Your task to perform on an android device: What's a good restaurant in Atlanta? Image 0: 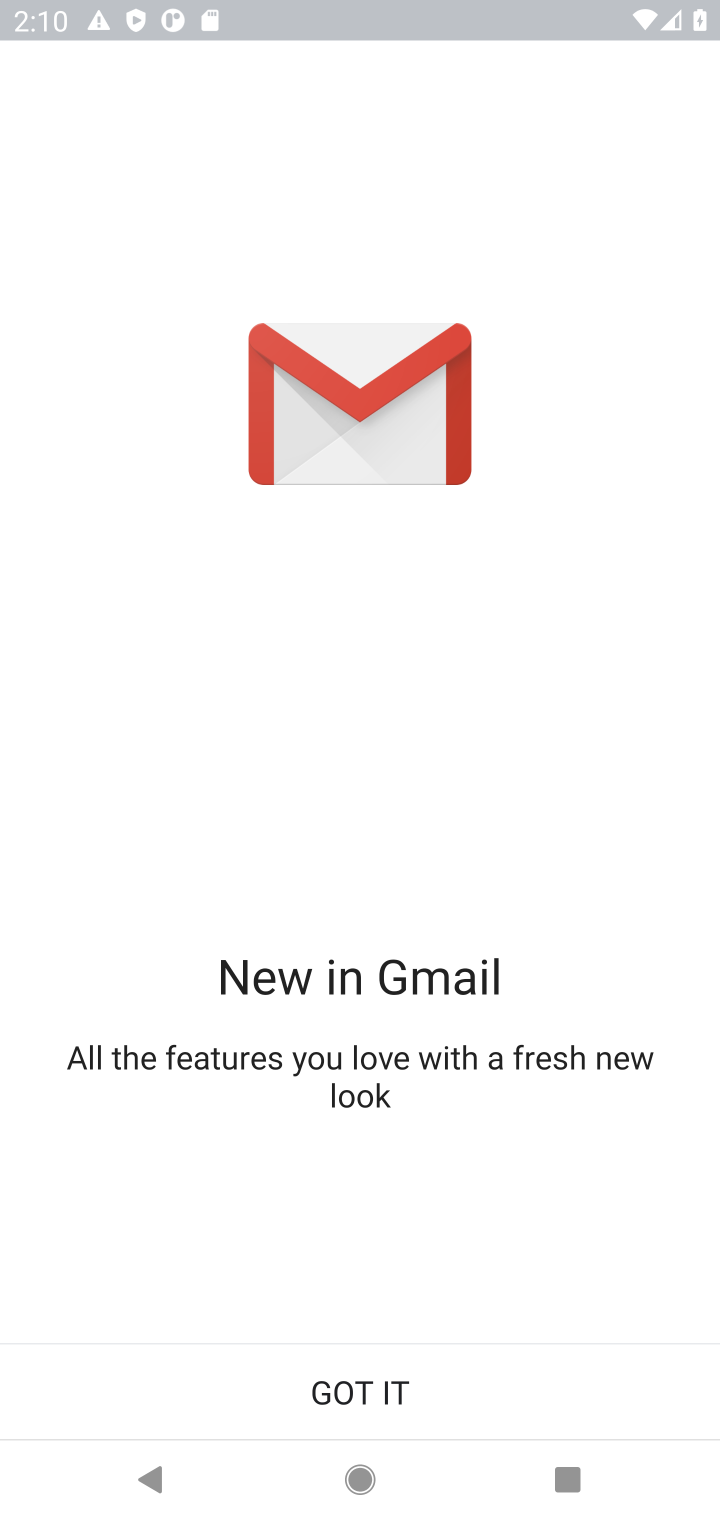
Step 0: press back button
Your task to perform on an android device: What's a good restaurant in Atlanta? Image 1: 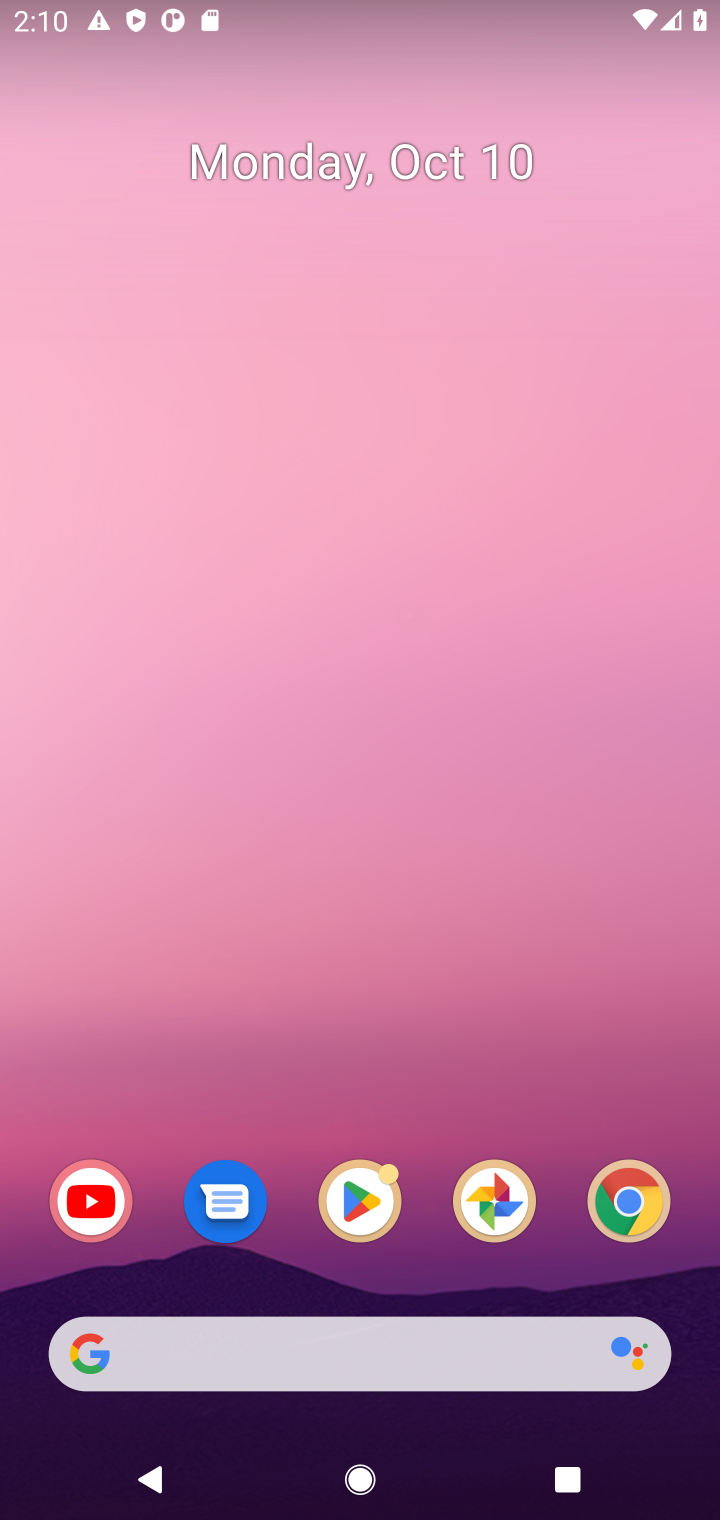
Step 1: click (218, 1370)
Your task to perform on an android device: What's a good restaurant in Atlanta? Image 2: 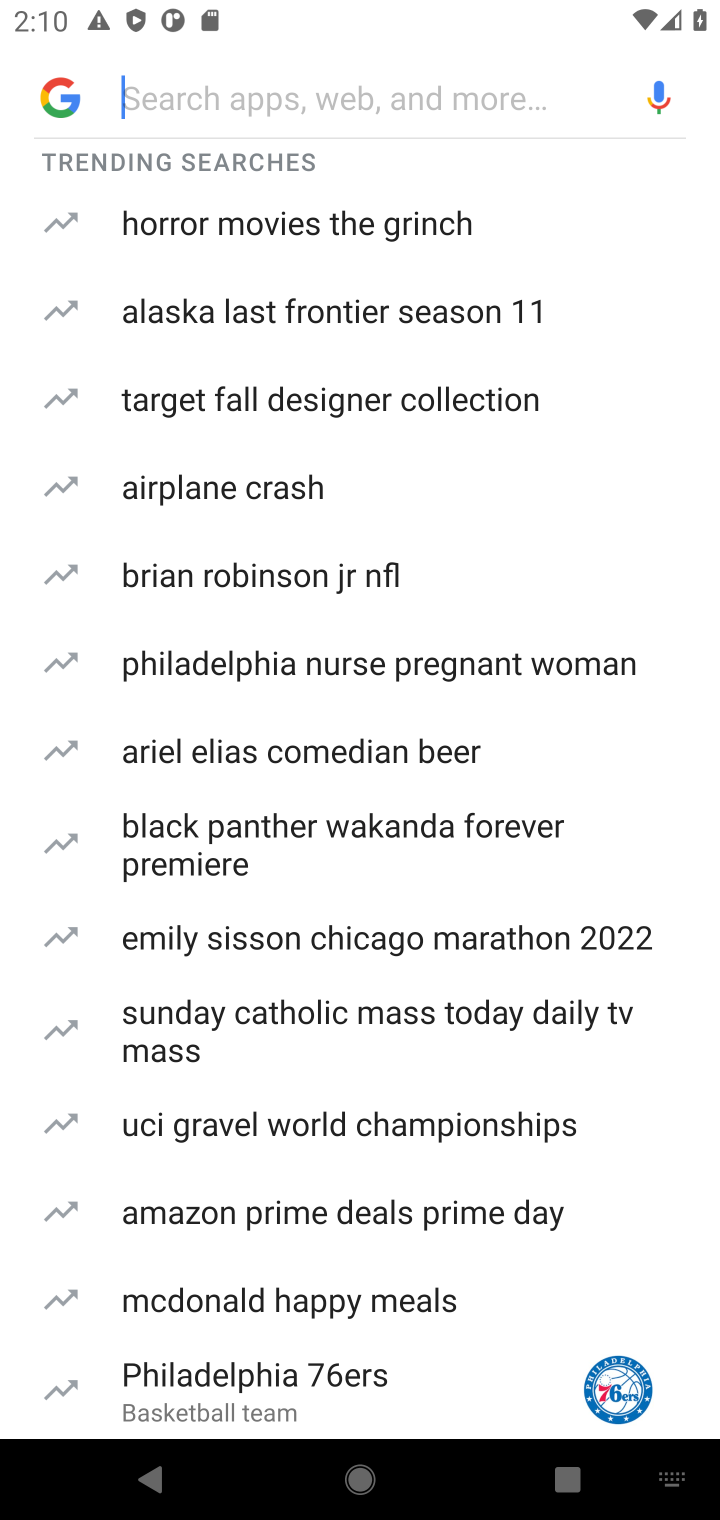
Step 2: type "good restaurant in Atlanta?"
Your task to perform on an android device: What's a good restaurant in Atlanta? Image 3: 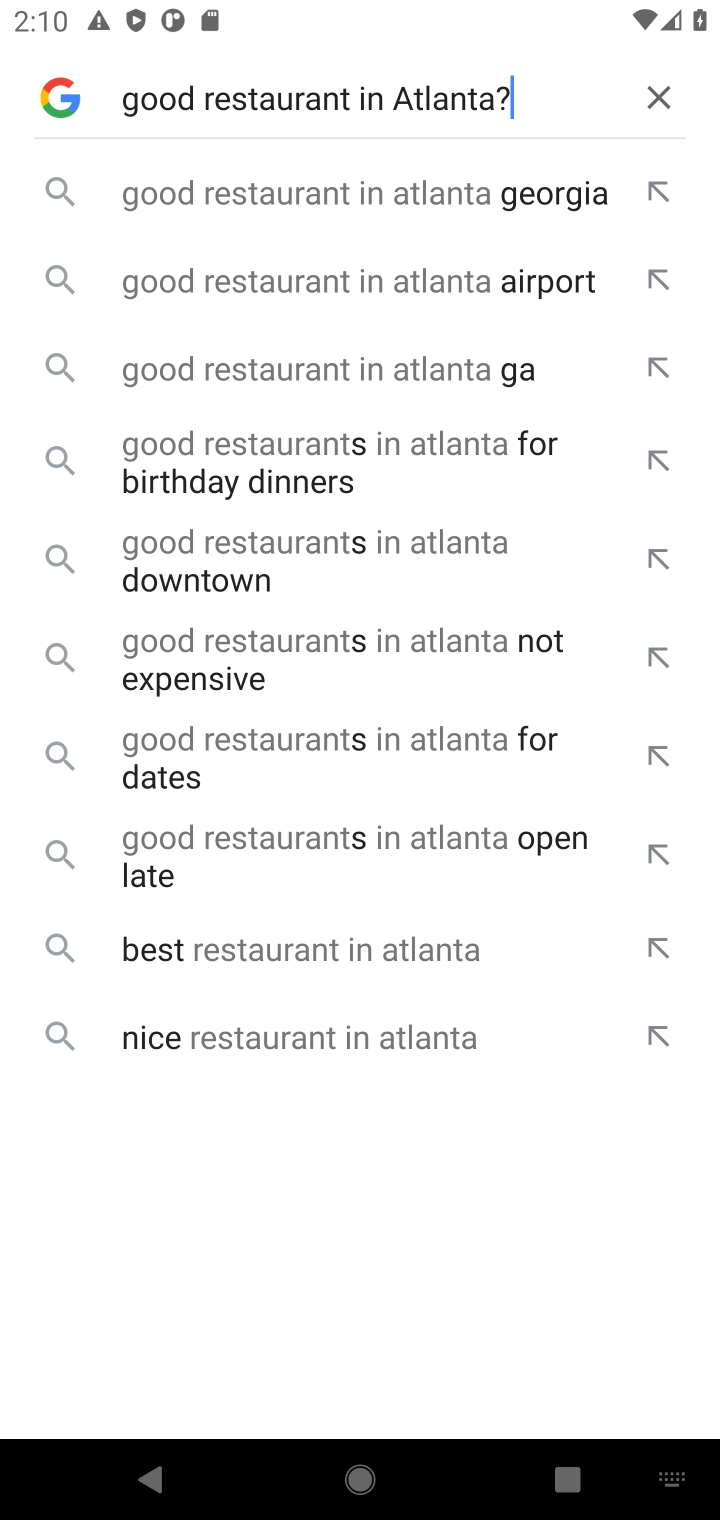
Step 3: press enter
Your task to perform on an android device: What's a good restaurant in Atlanta? Image 4: 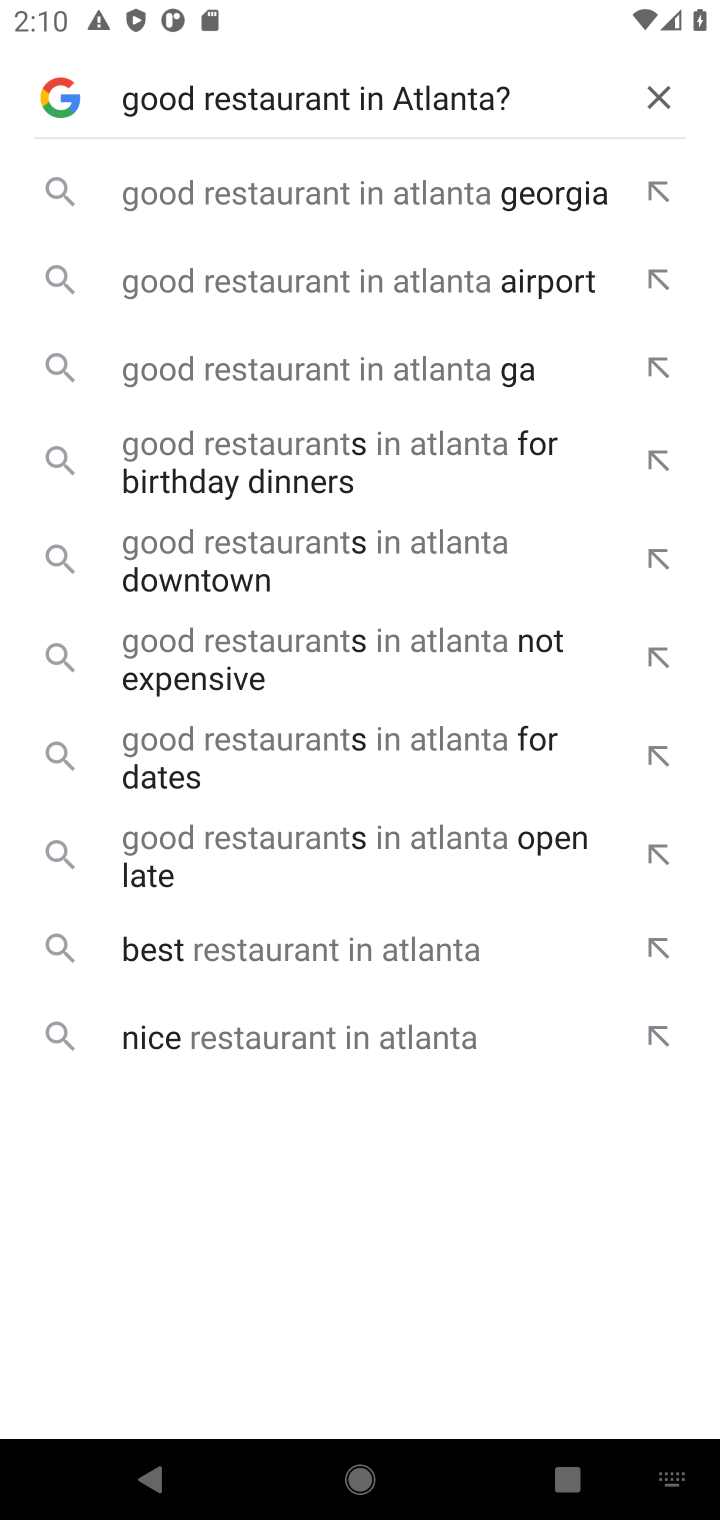
Step 4: type ""
Your task to perform on an android device: What's a good restaurant in Atlanta? Image 5: 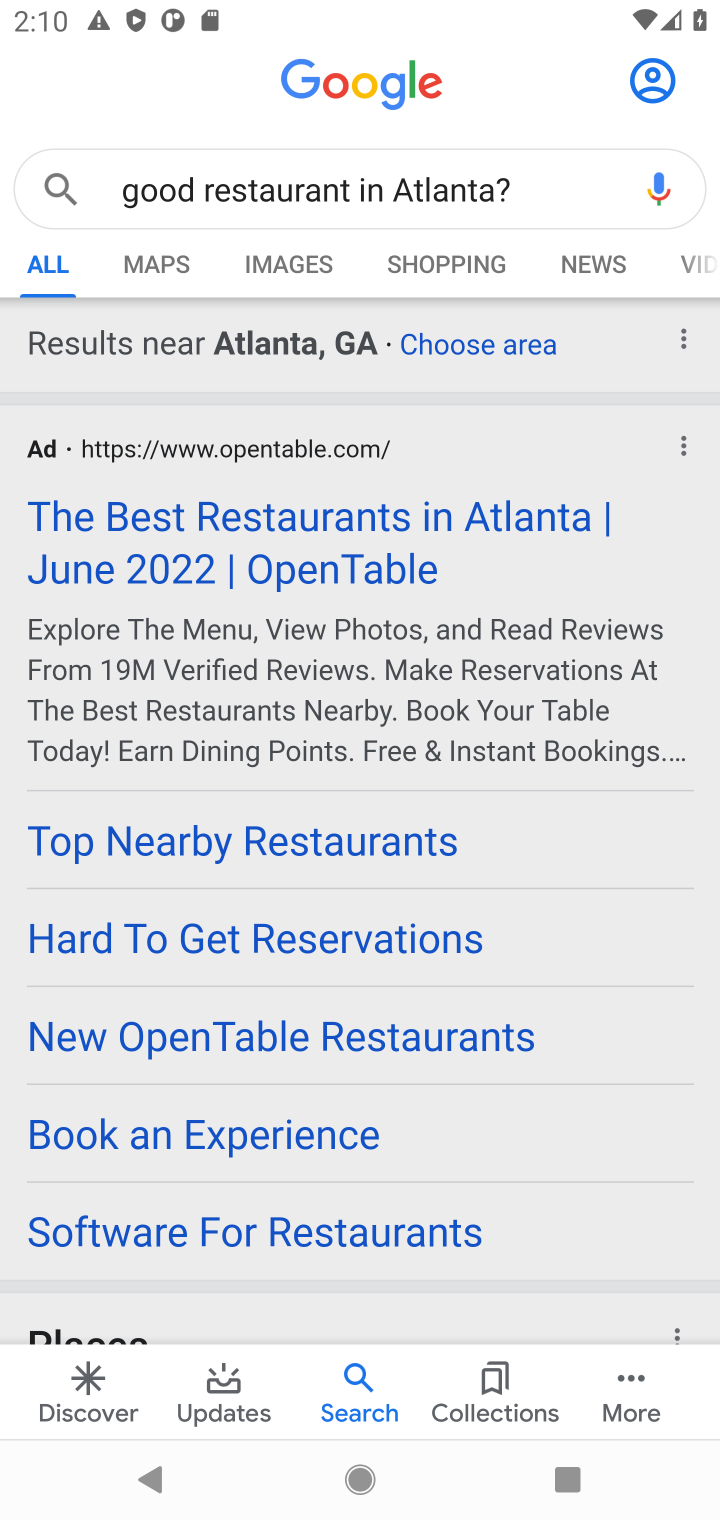
Step 5: drag from (390, 1087) to (426, 420)
Your task to perform on an android device: What's a good restaurant in Atlanta? Image 6: 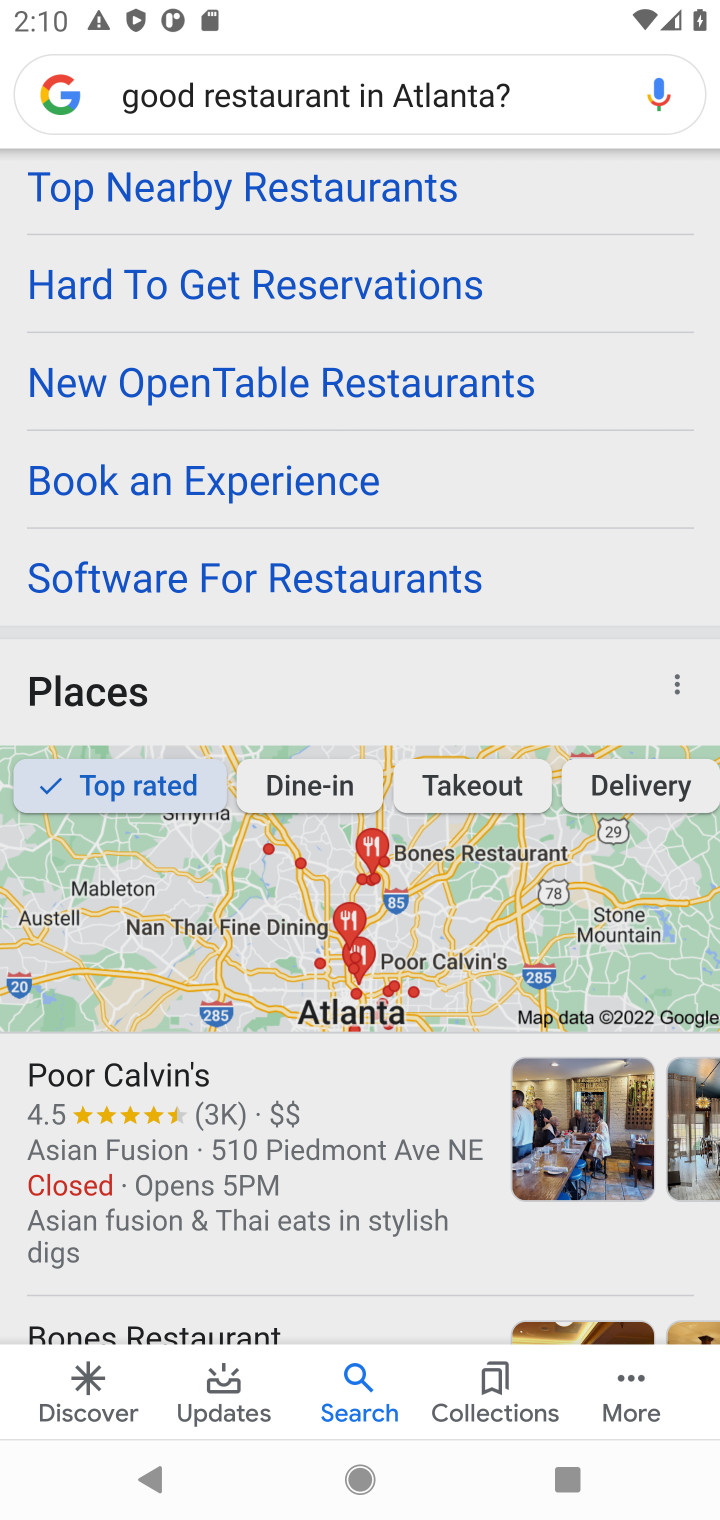
Step 6: drag from (392, 1206) to (413, 675)
Your task to perform on an android device: What's a good restaurant in Atlanta? Image 7: 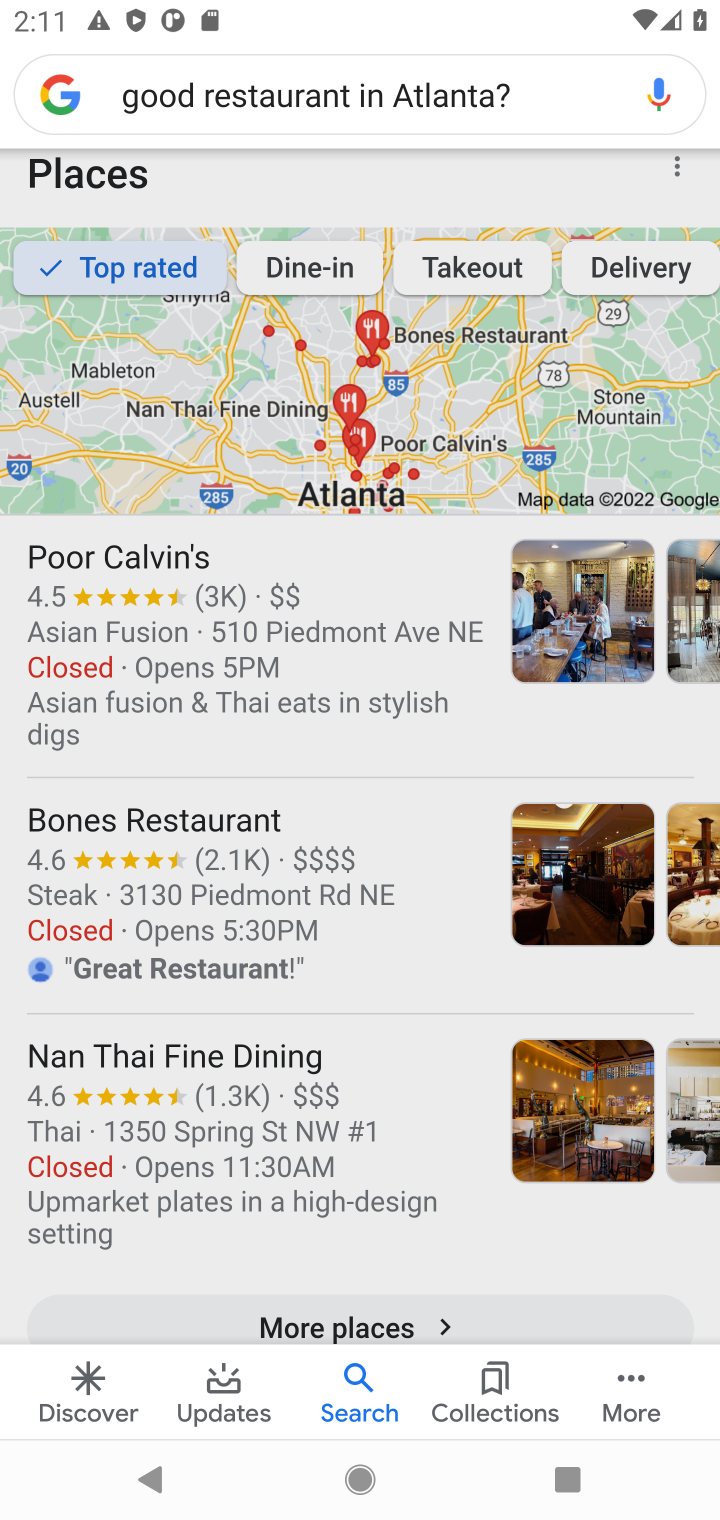
Step 7: click (413, 675)
Your task to perform on an android device: What's a good restaurant in Atlanta? Image 8: 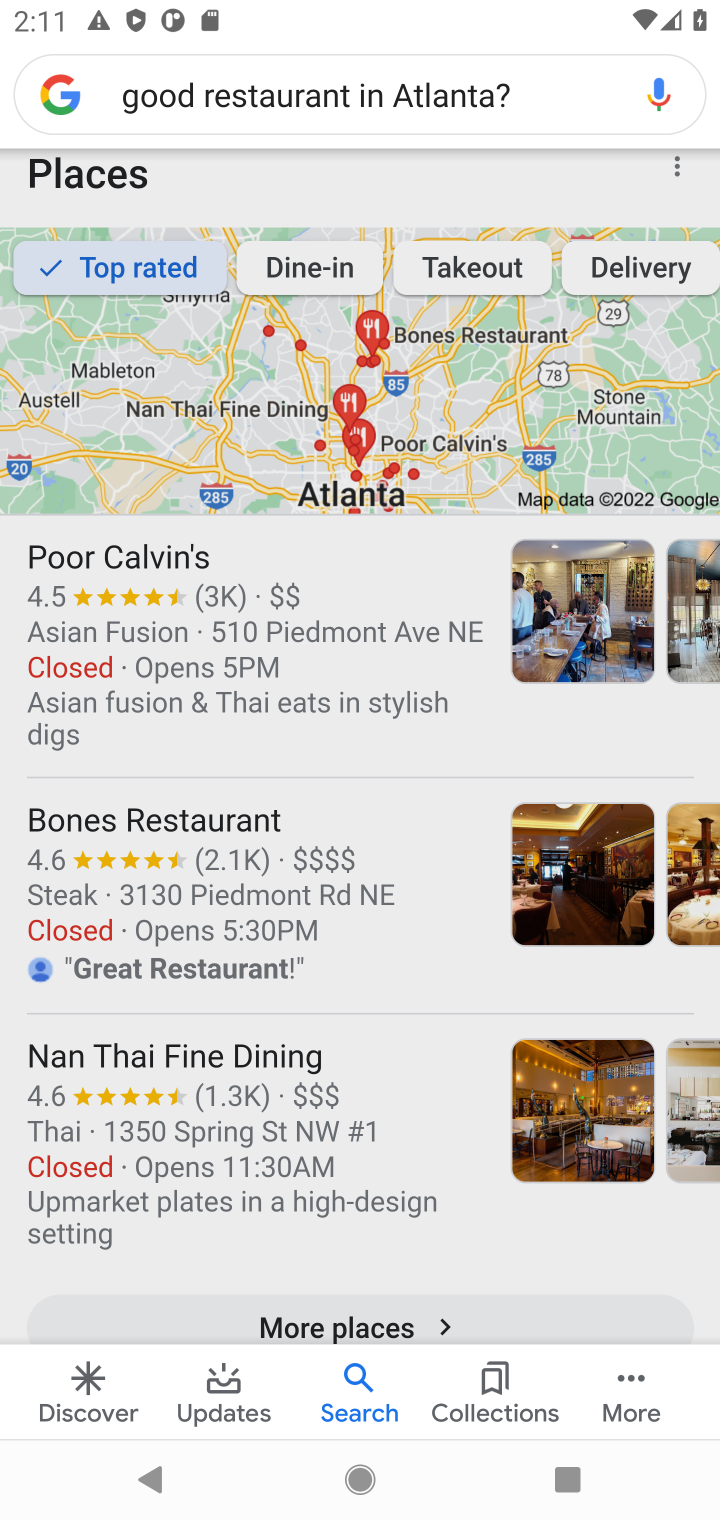
Step 8: drag from (176, 1215) to (242, 929)
Your task to perform on an android device: What's a good restaurant in Atlanta? Image 9: 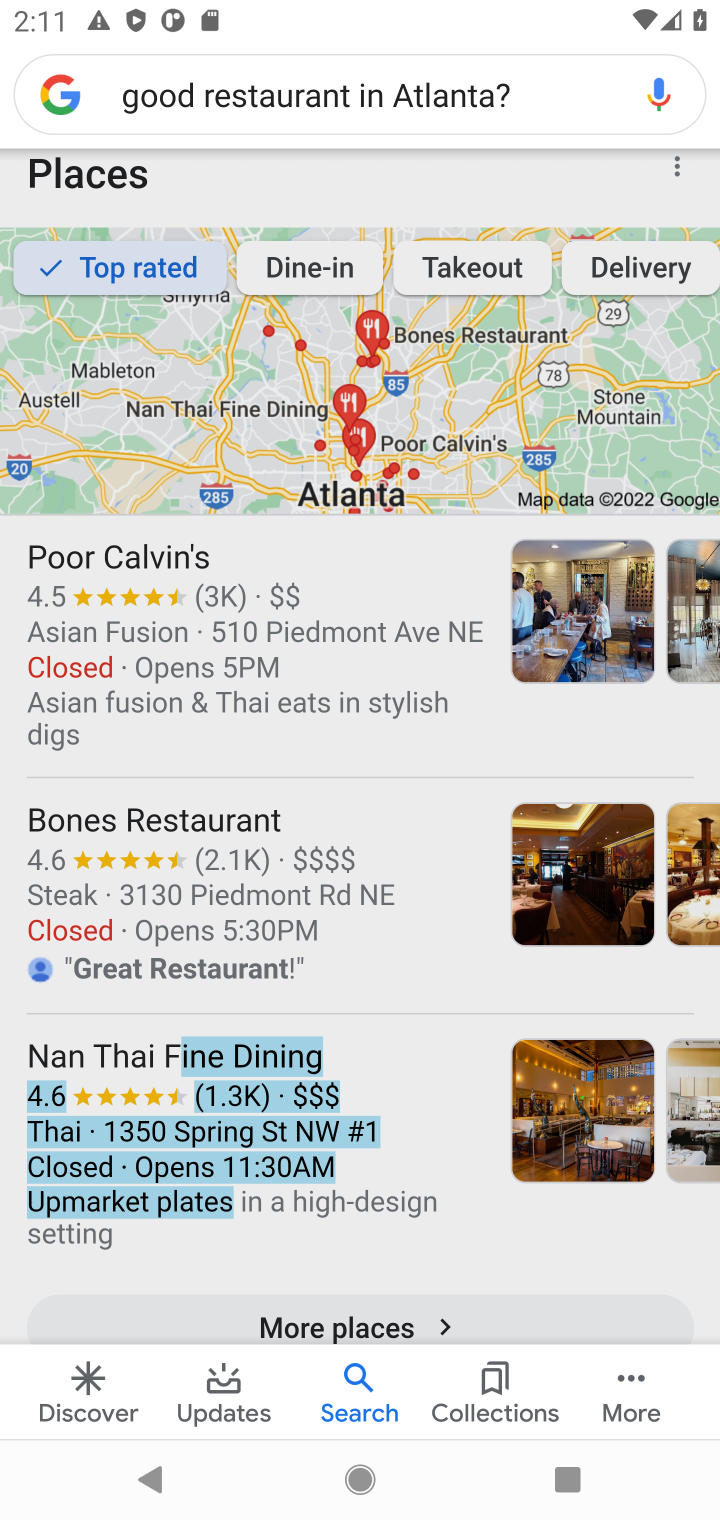
Step 9: click (370, 1005)
Your task to perform on an android device: What's a good restaurant in Atlanta? Image 10: 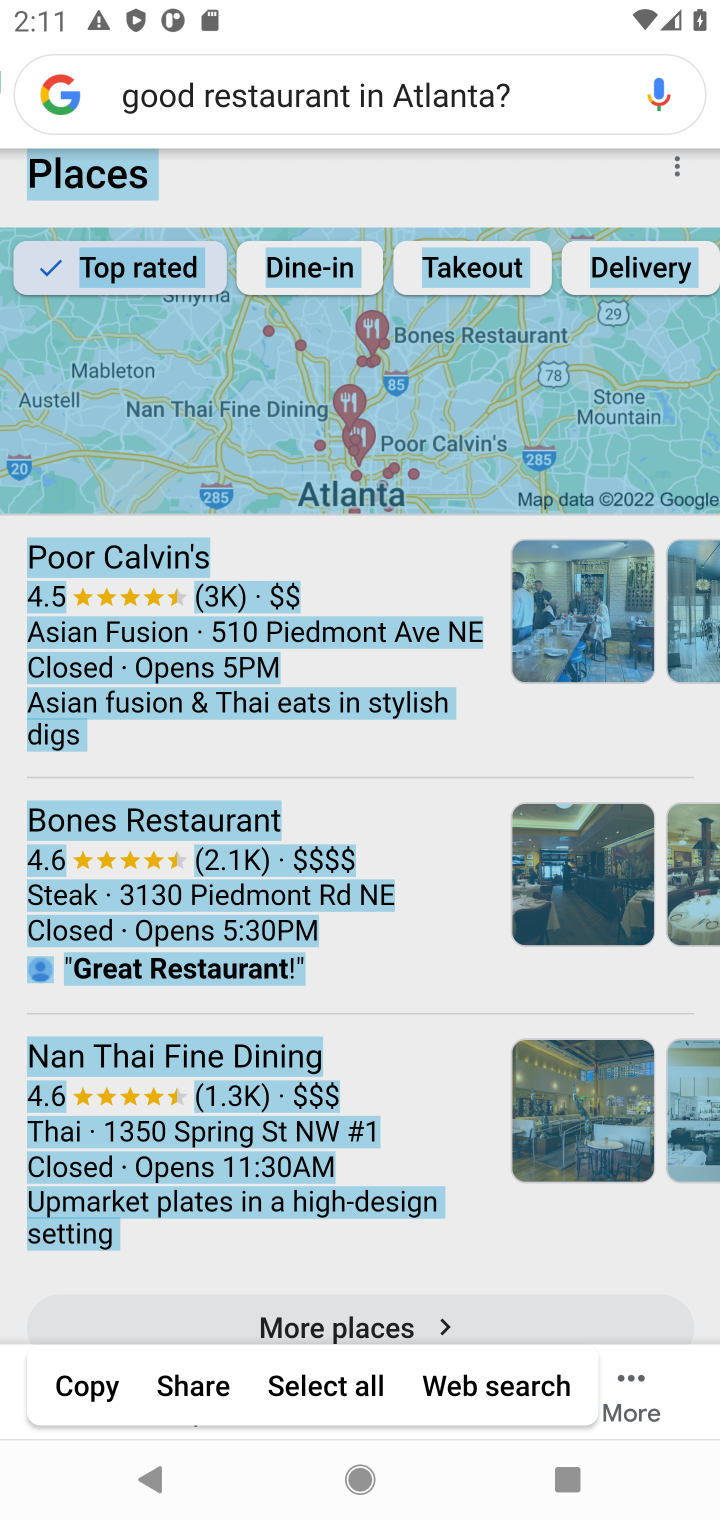
Step 10: click (384, 1118)
Your task to perform on an android device: What's a good restaurant in Atlanta? Image 11: 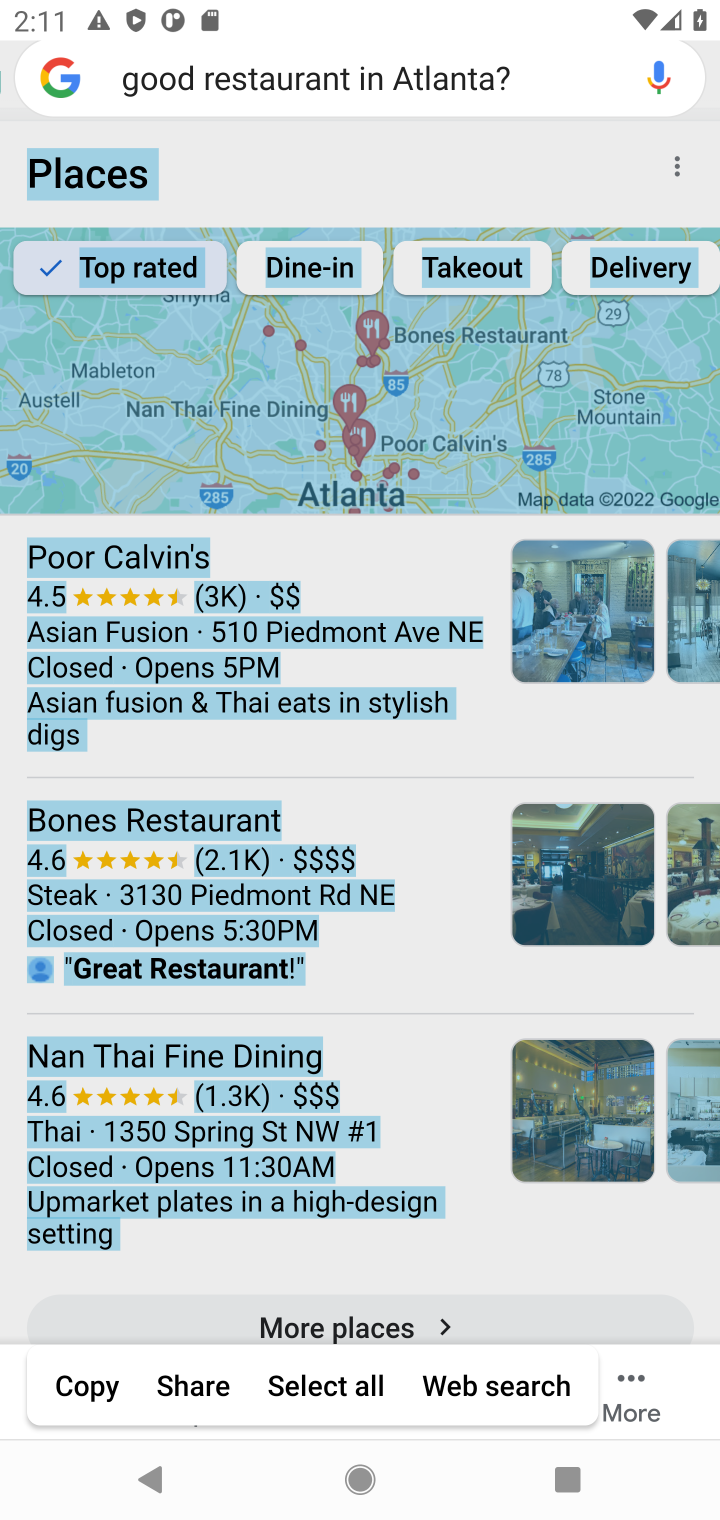
Step 11: click (384, 1116)
Your task to perform on an android device: What's a good restaurant in Atlanta? Image 12: 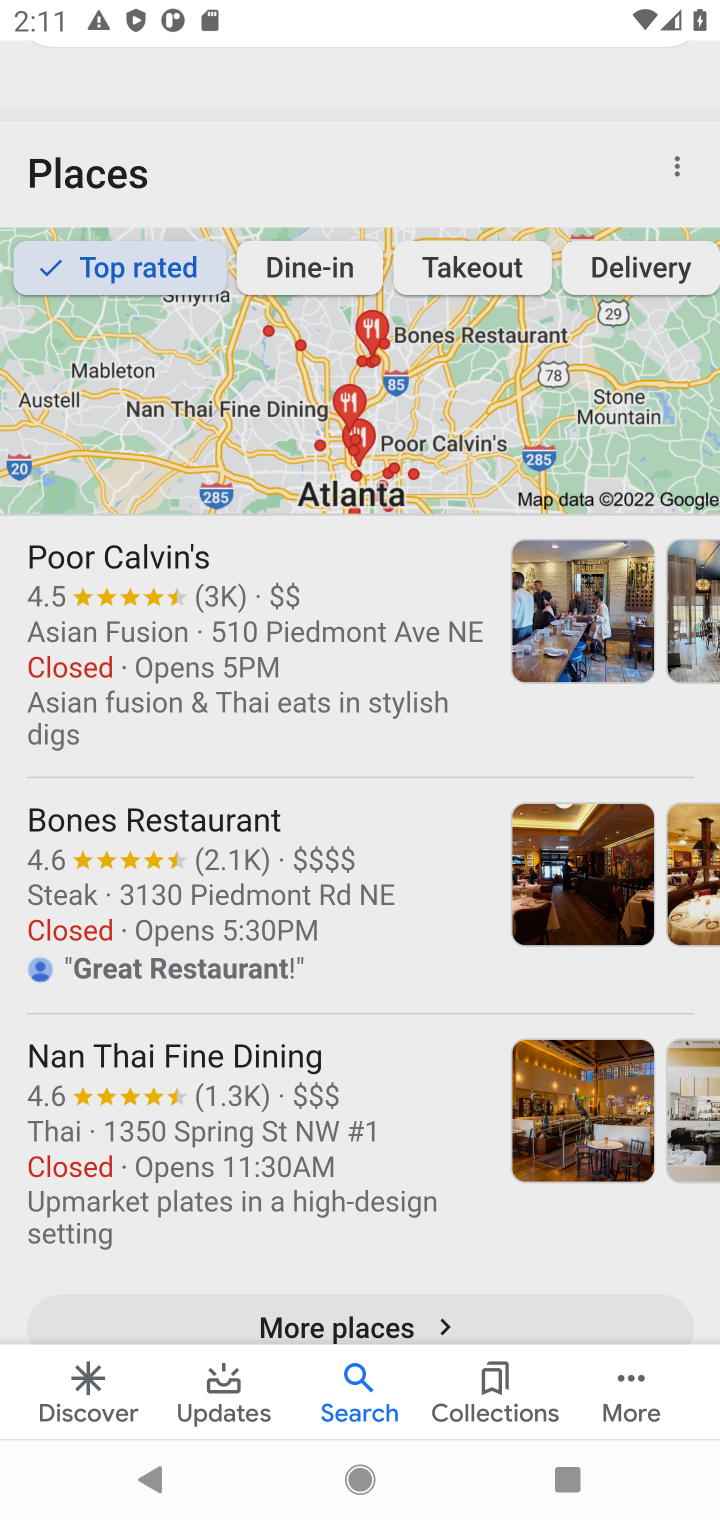
Step 12: click (384, 1116)
Your task to perform on an android device: What's a good restaurant in Atlanta? Image 13: 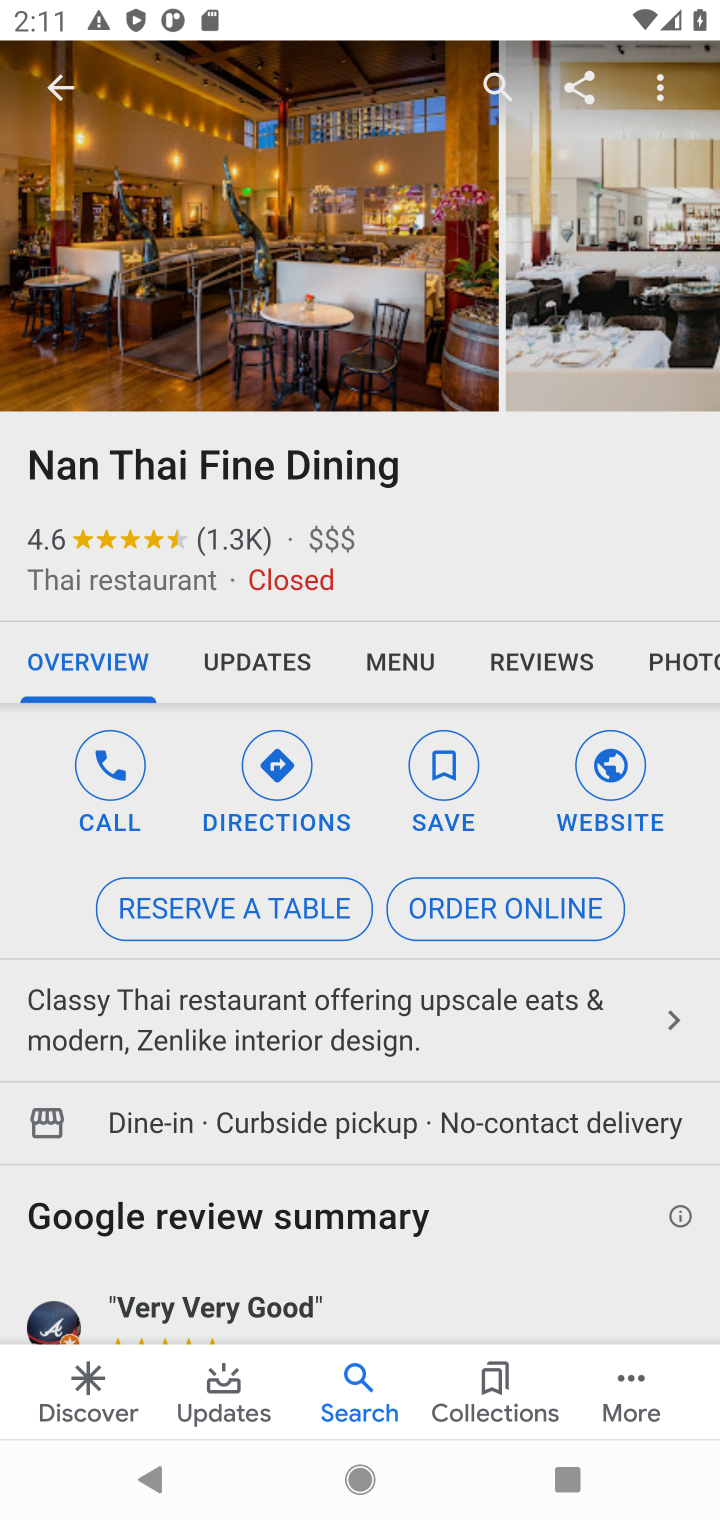
Step 13: click (384, 1116)
Your task to perform on an android device: What's a good restaurant in Atlanta? Image 14: 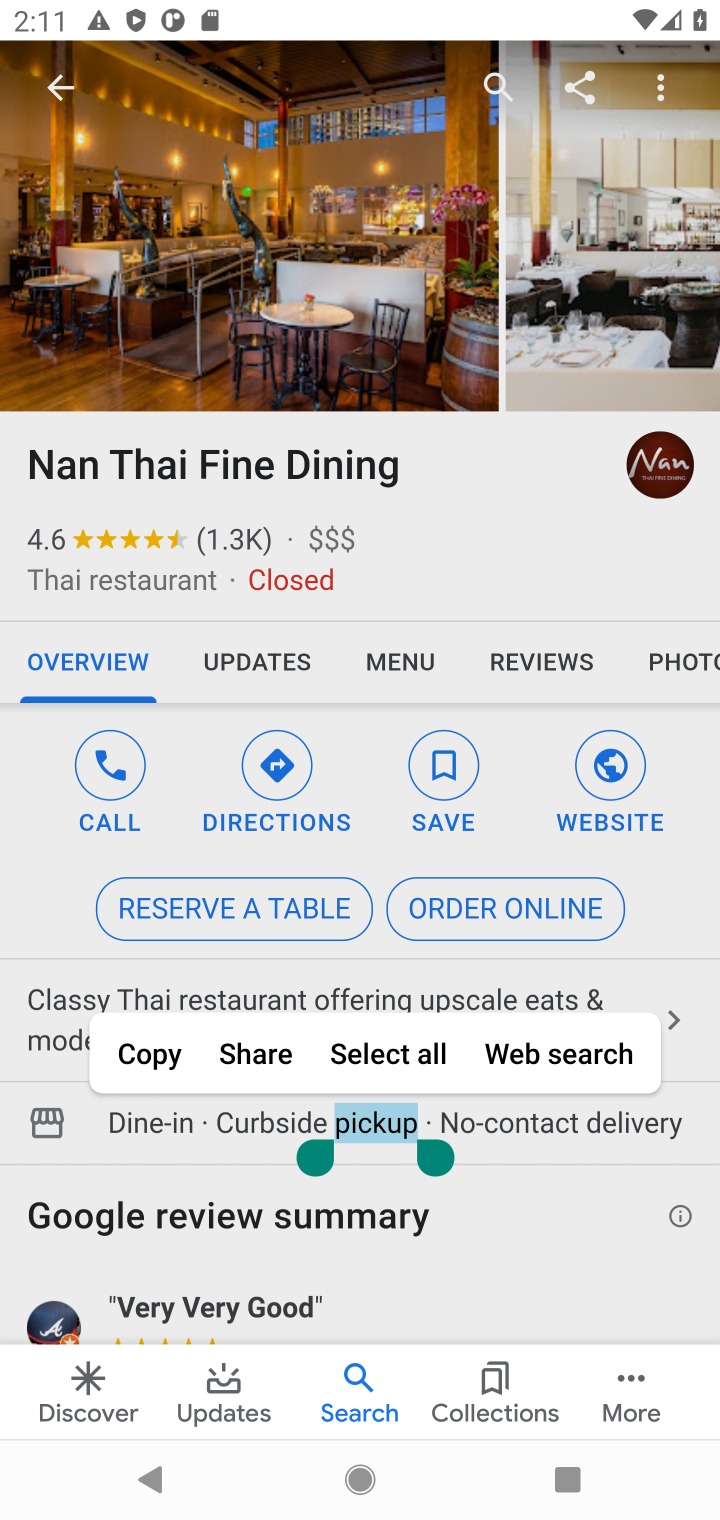
Step 14: click (475, 1264)
Your task to perform on an android device: What's a good restaurant in Atlanta? Image 15: 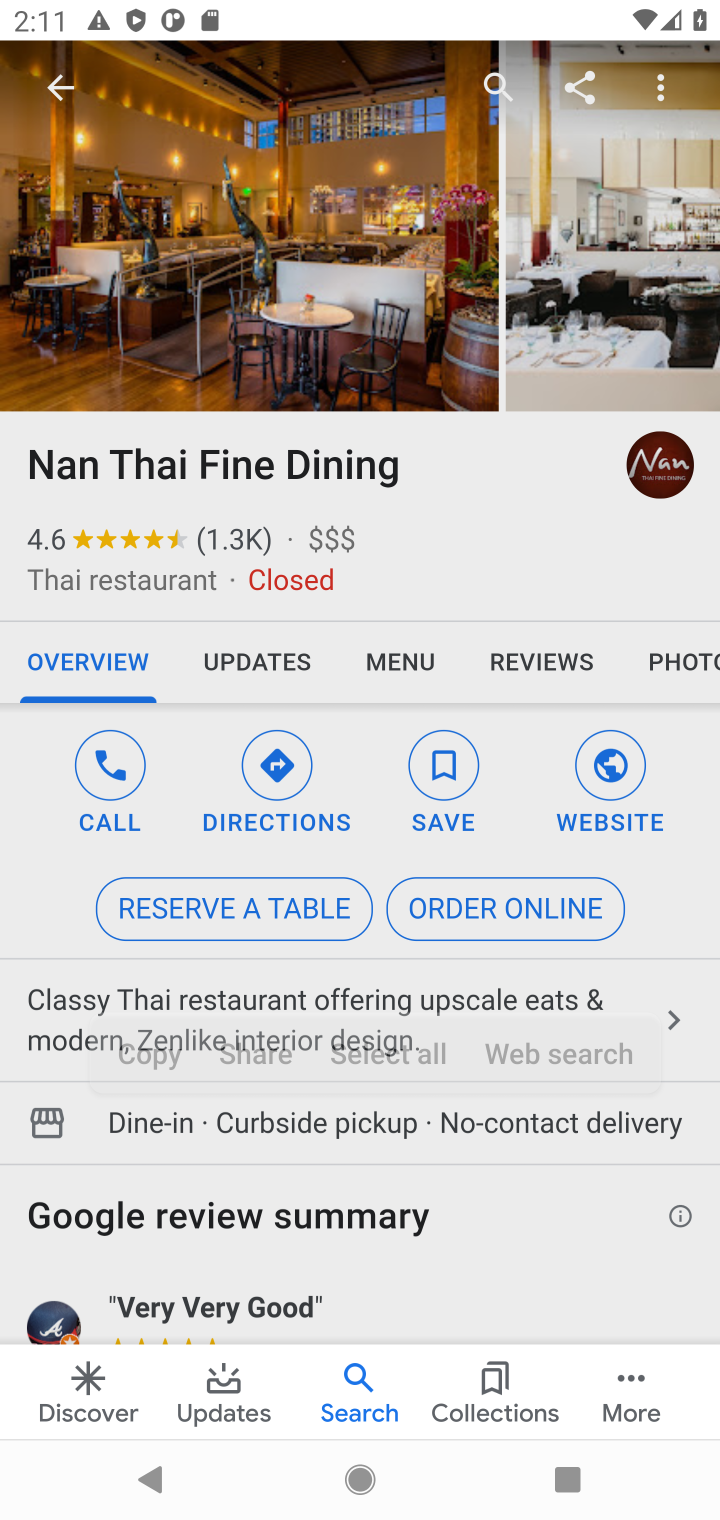
Step 15: click (464, 1239)
Your task to perform on an android device: What's a good restaurant in Atlanta? Image 16: 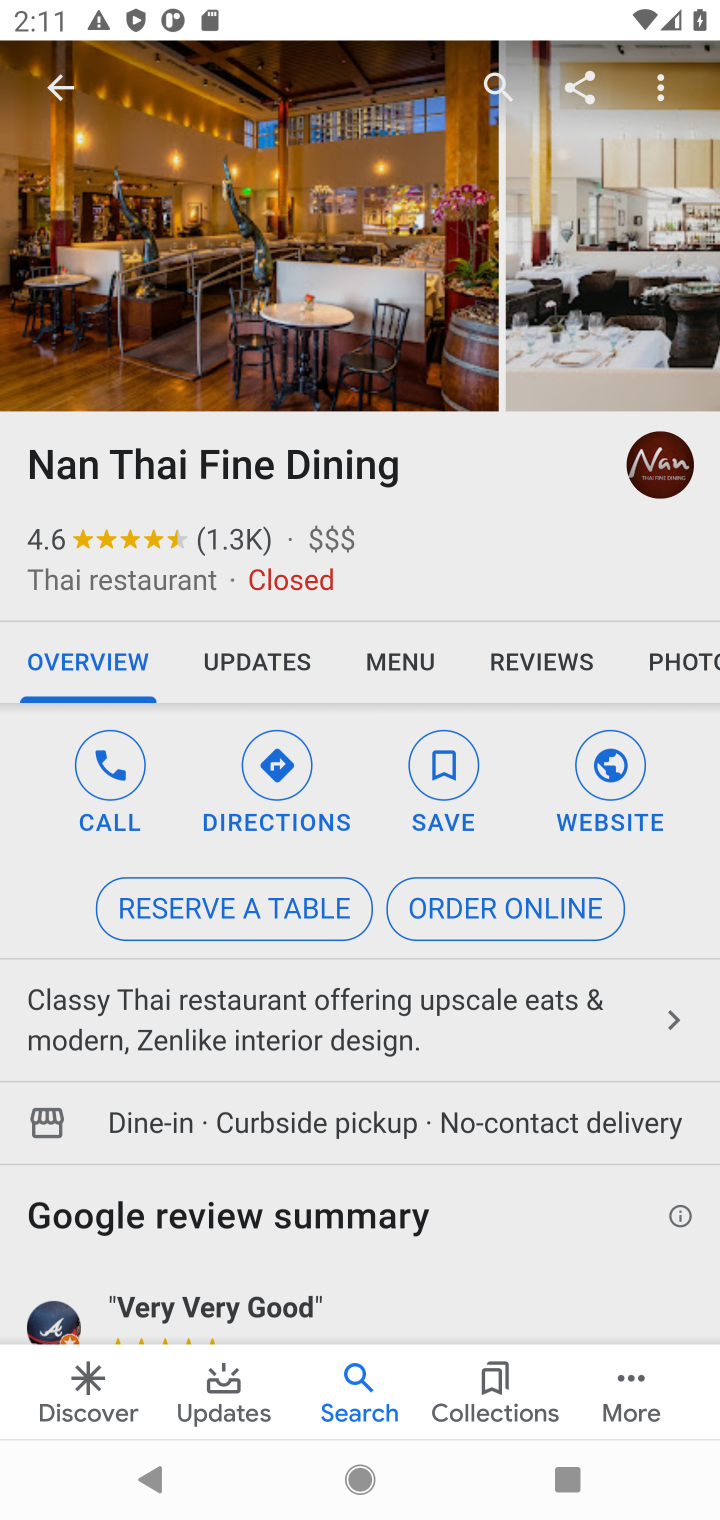
Step 16: click (464, 1237)
Your task to perform on an android device: What's a good restaurant in Atlanta? Image 17: 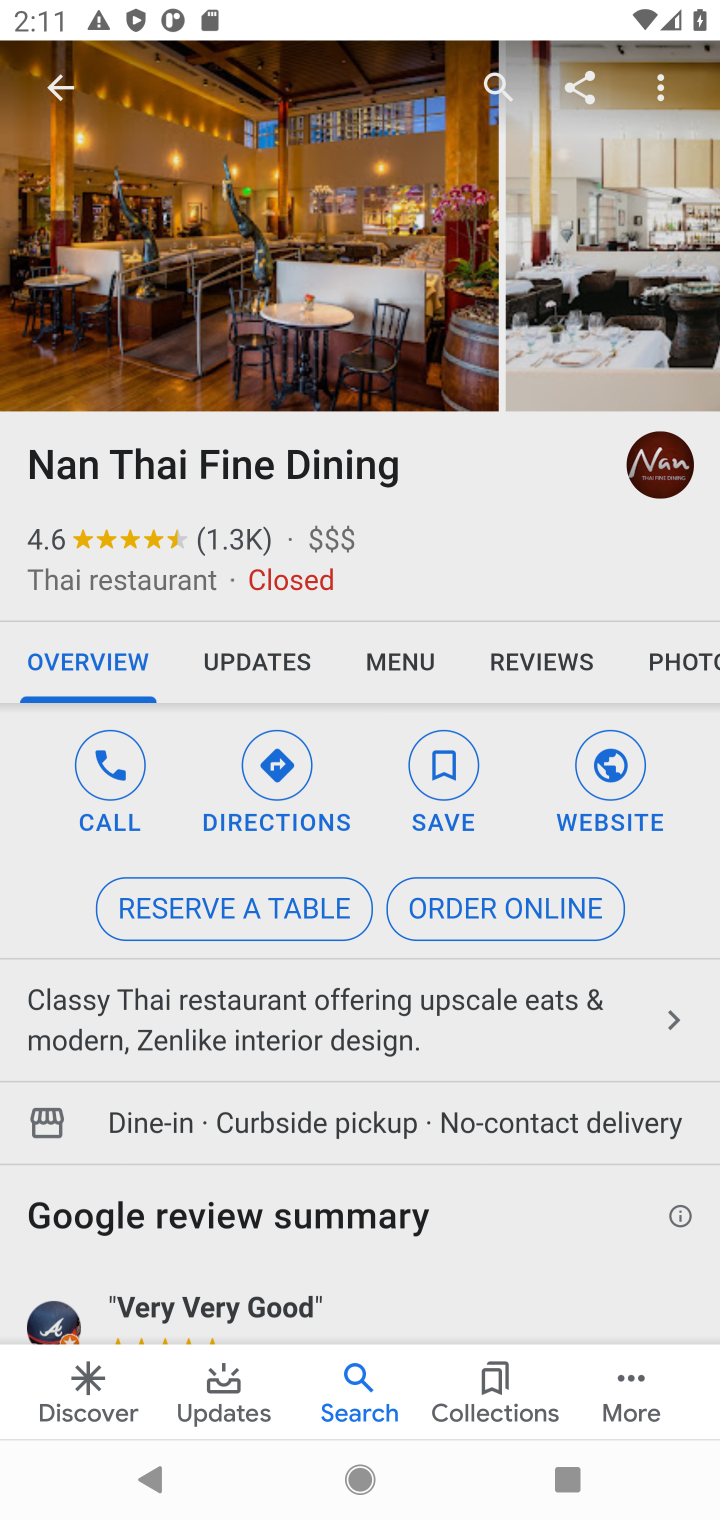
Step 17: drag from (462, 1234) to (488, 1152)
Your task to perform on an android device: What's a good restaurant in Atlanta? Image 18: 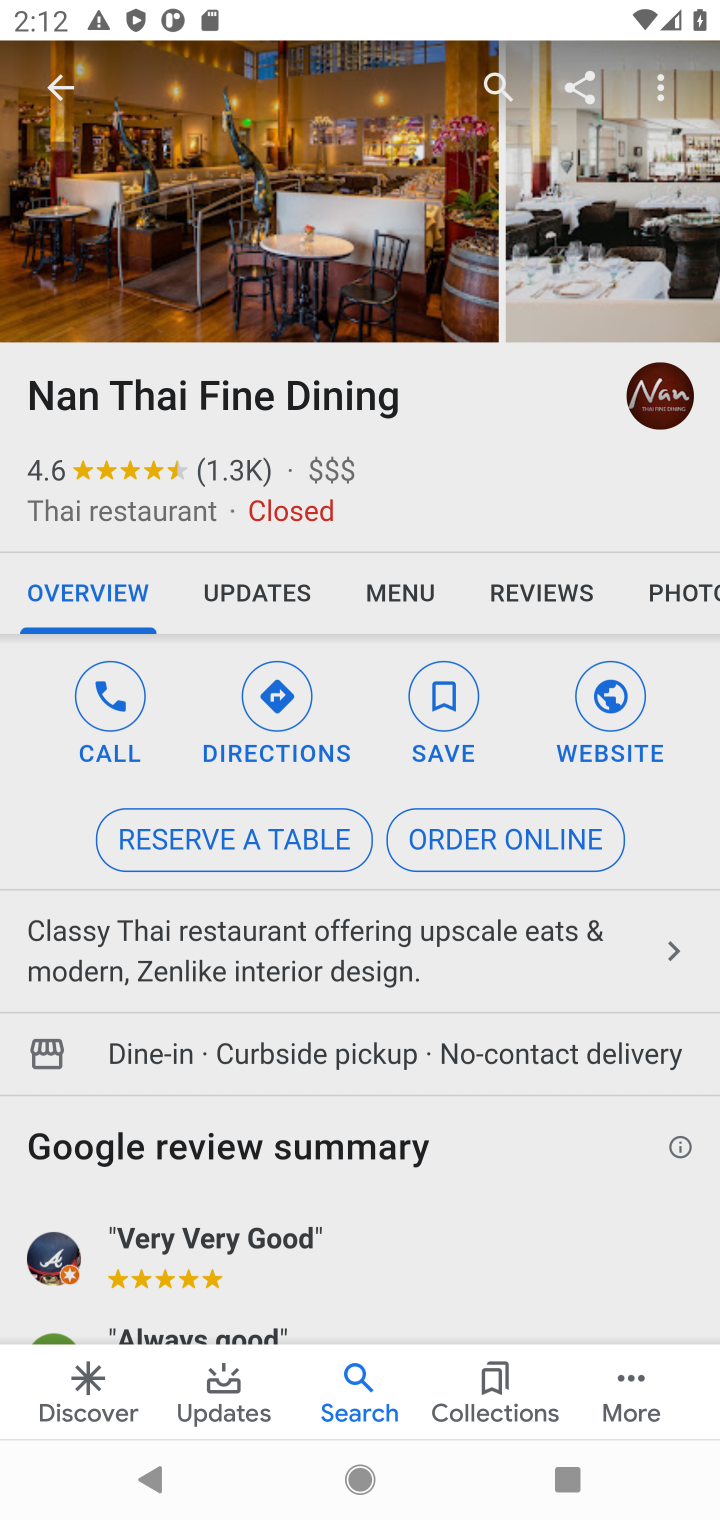
Step 18: drag from (488, 1149) to (496, 1082)
Your task to perform on an android device: What's a good restaurant in Atlanta? Image 19: 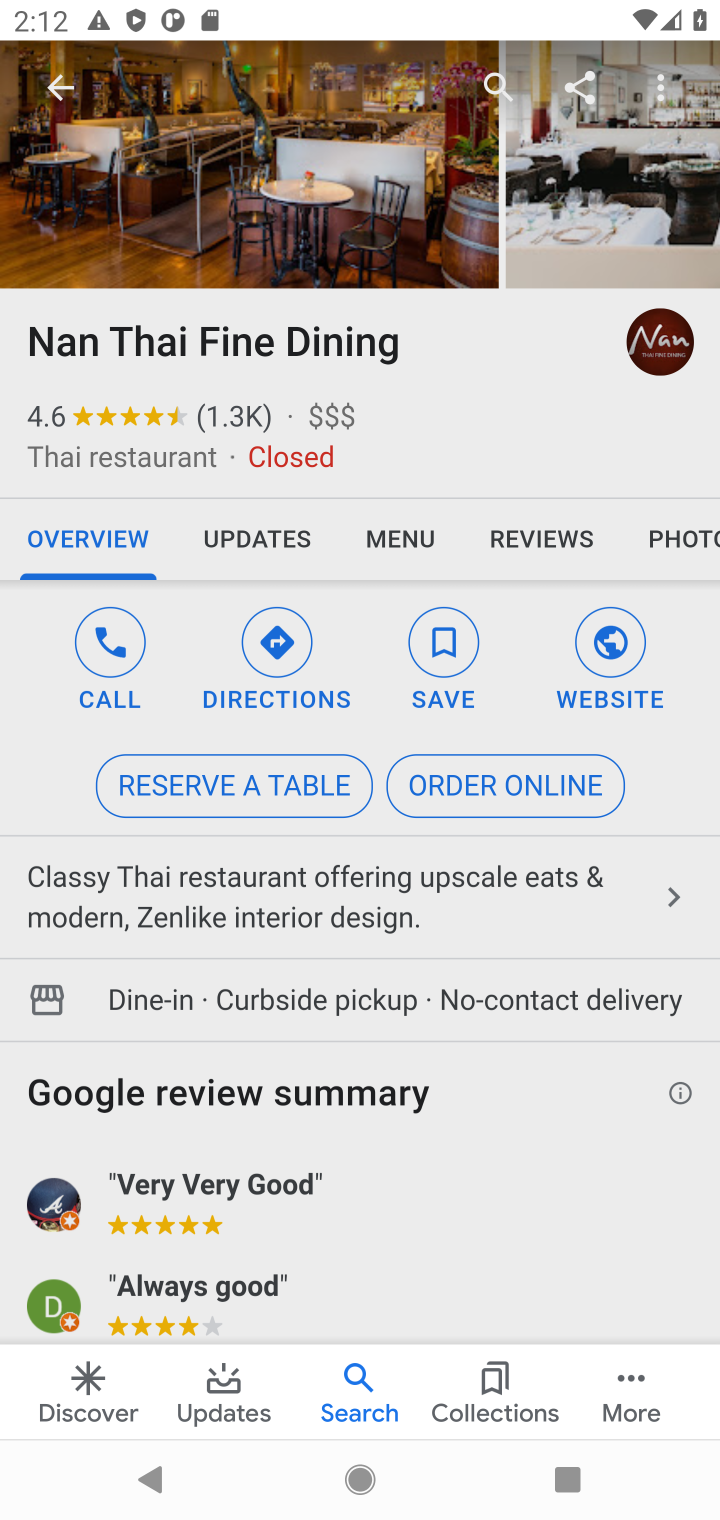
Step 19: drag from (496, 1082) to (474, 1000)
Your task to perform on an android device: What's a good restaurant in Atlanta? Image 20: 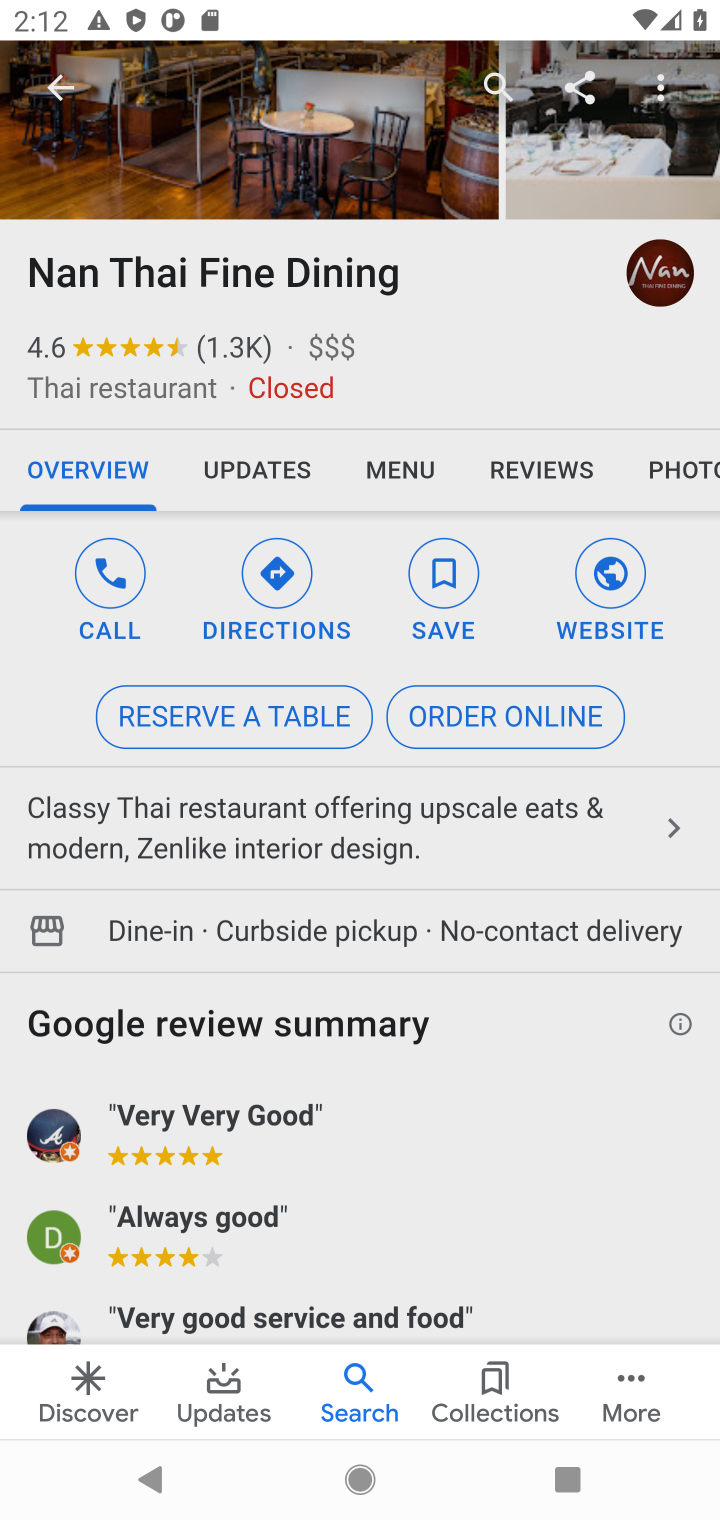
Step 20: drag from (474, 1000) to (380, 814)
Your task to perform on an android device: What's a good restaurant in Atlanta? Image 21: 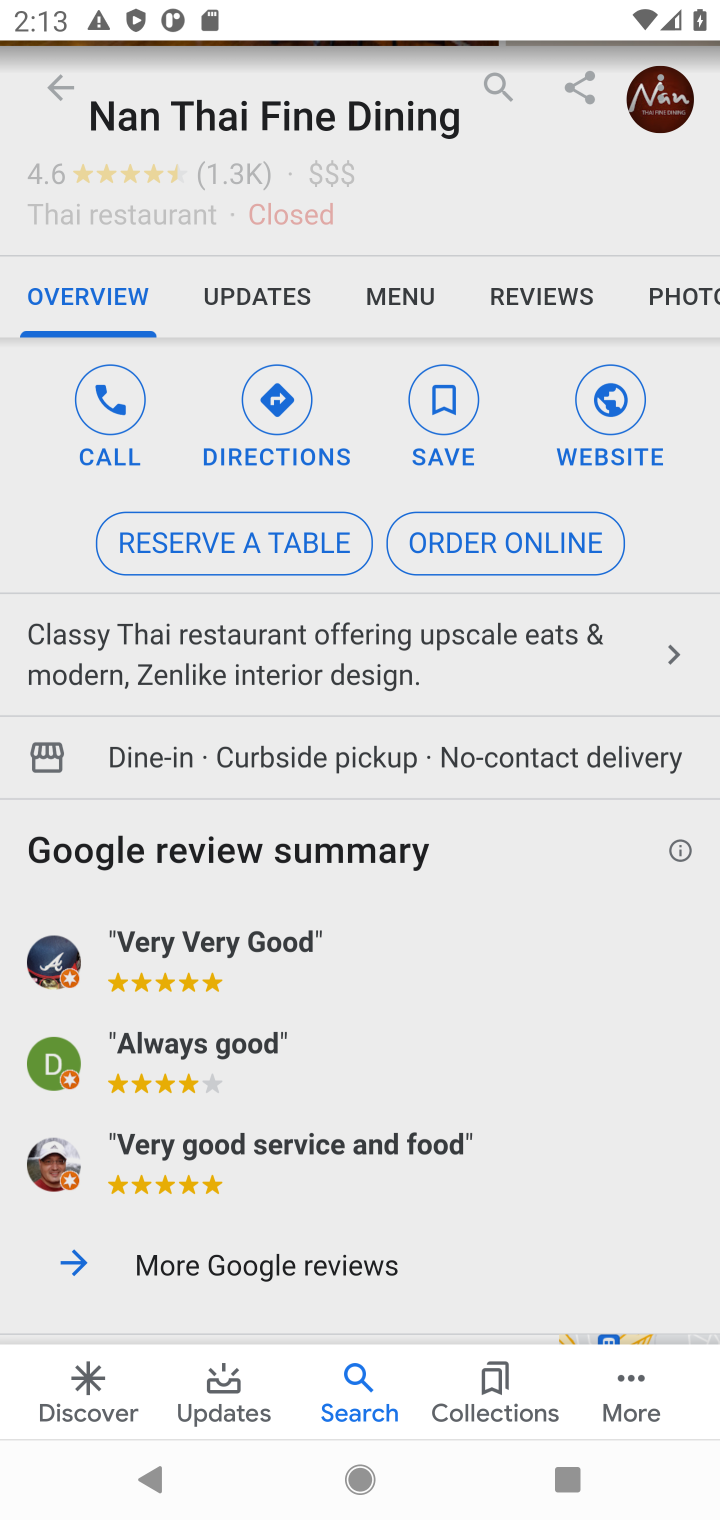
Step 21: drag from (337, 1123) to (312, 720)
Your task to perform on an android device: What's a good restaurant in Atlanta? Image 22: 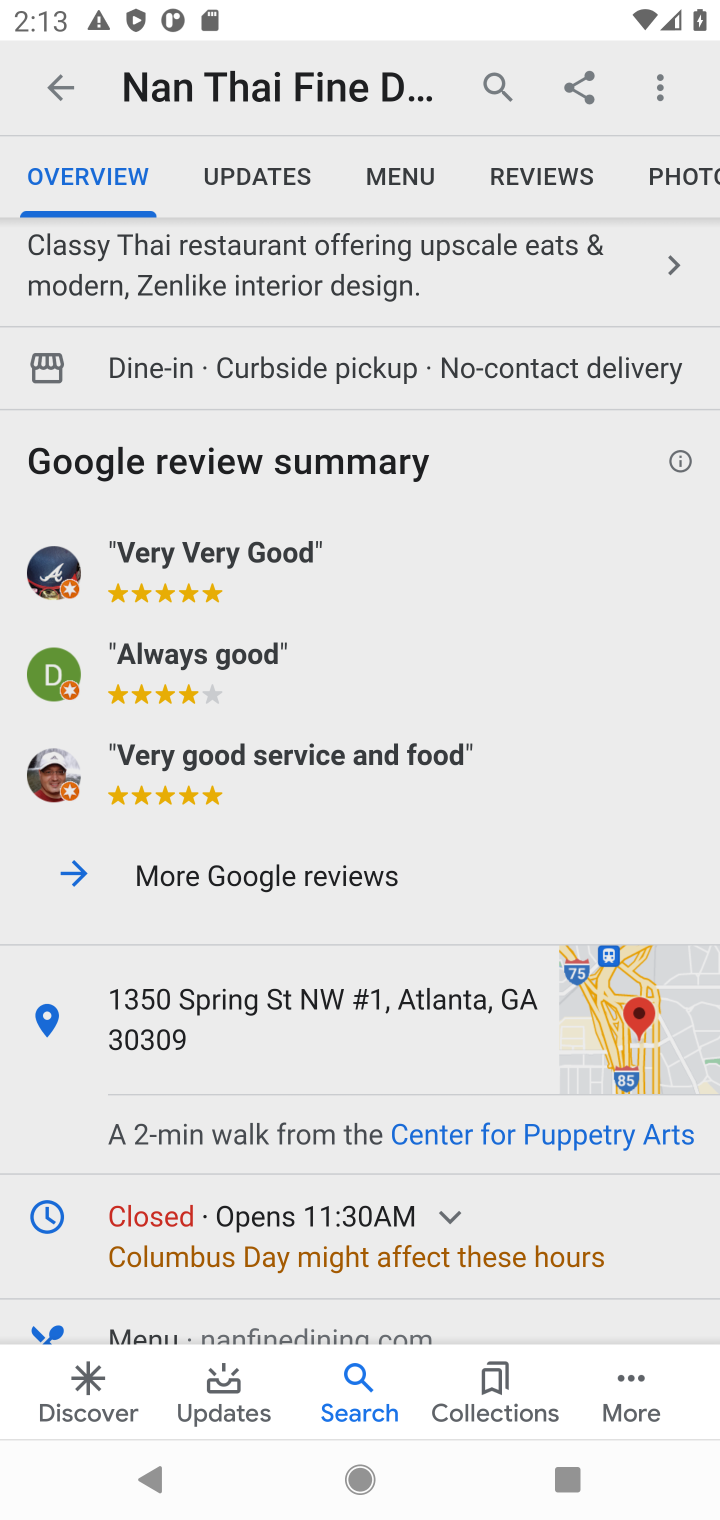
Step 22: drag from (422, 1205) to (339, 995)
Your task to perform on an android device: What's a good restaurant in Atlanta? Image 23: 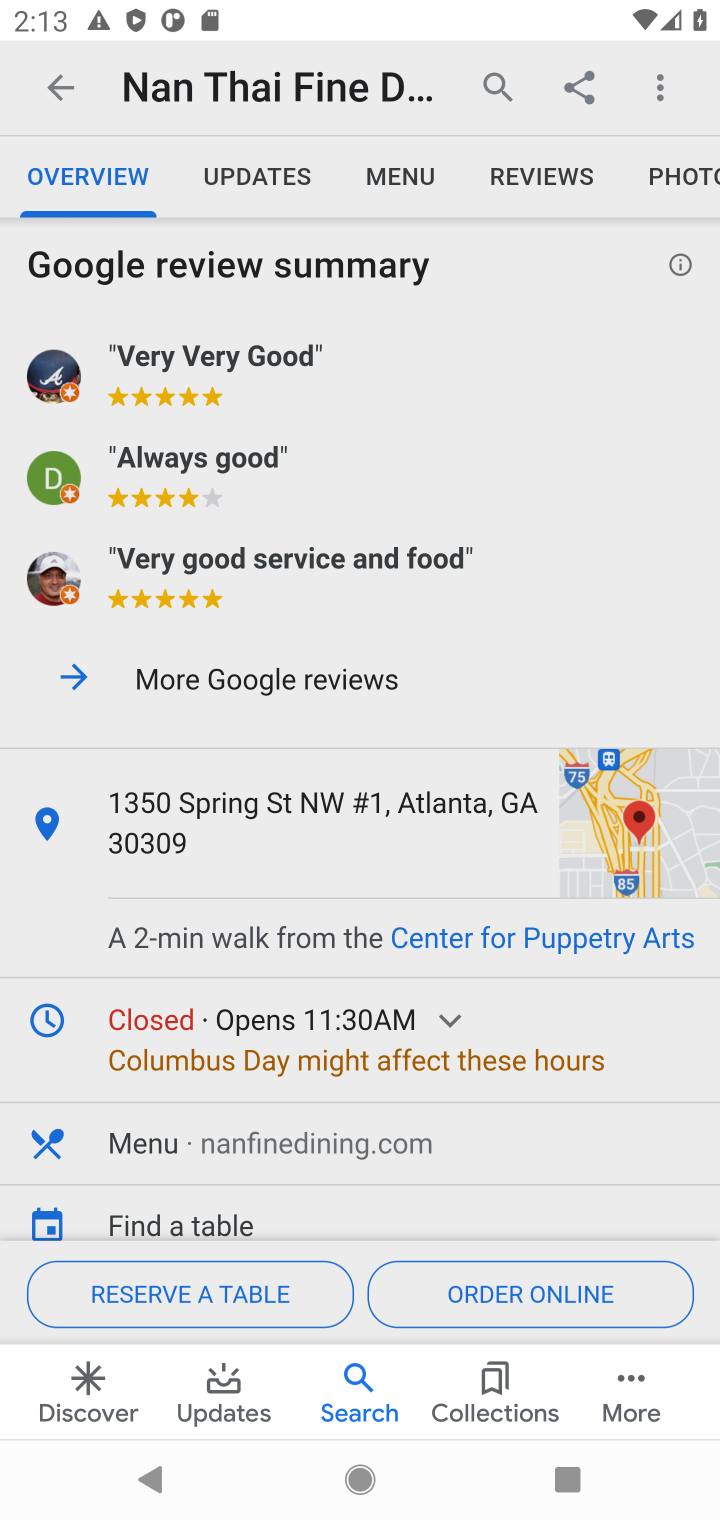
Step 23: click (310, 981)
Your task to perform on an android device: What's a good restaurant in Atlanta? Image 24: 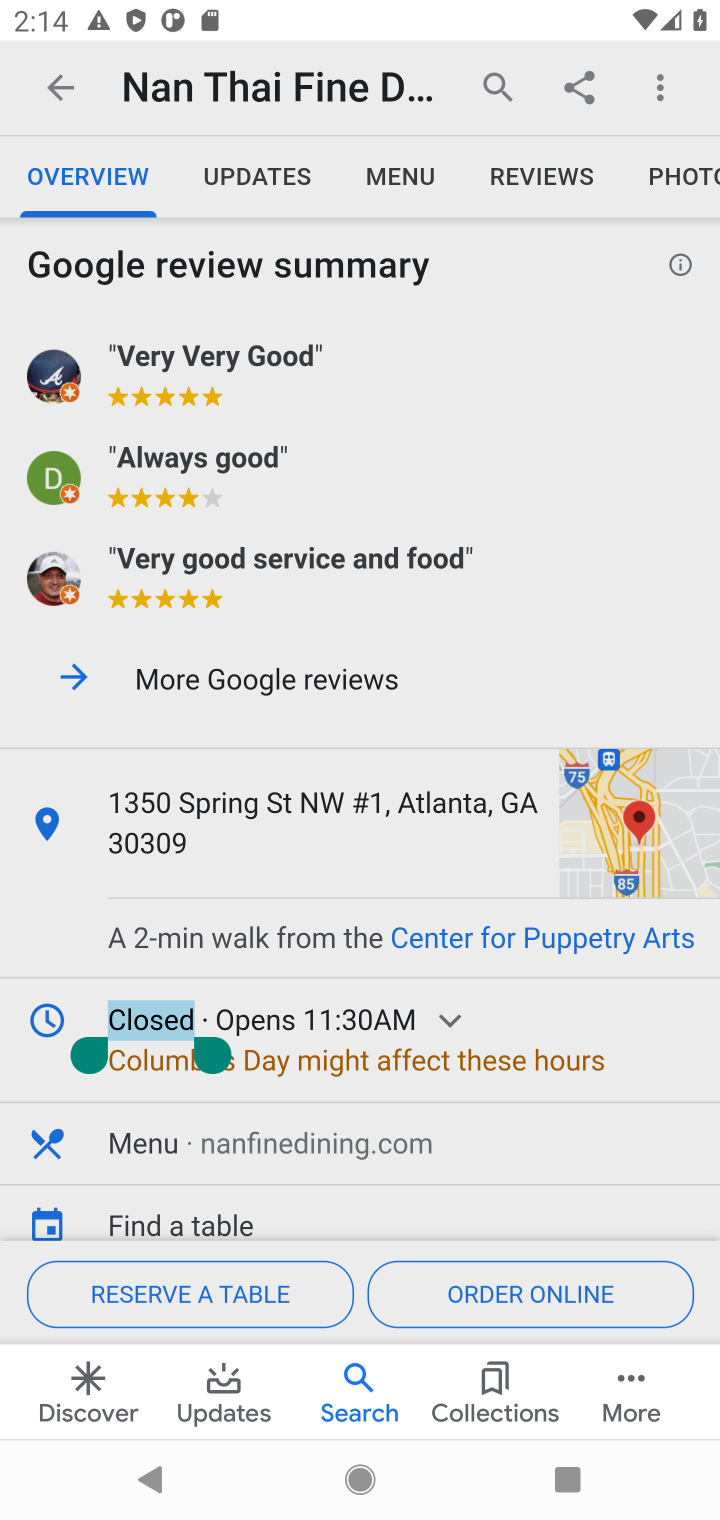
Step 24: task complete